Your task to perform on an android device: show emergency info Image 0: 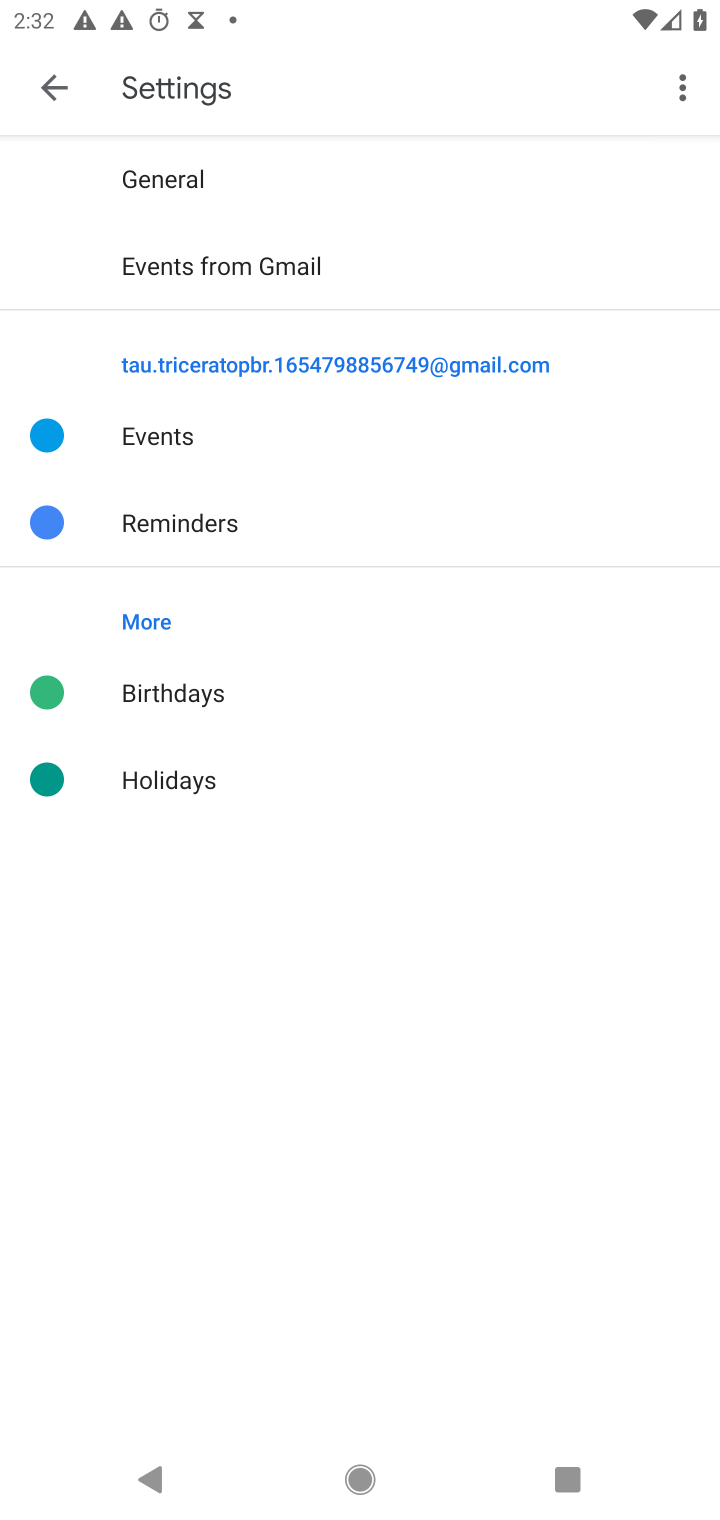
Step 0: press home button
Your task to perform on an android device: show emergency info Image 1: 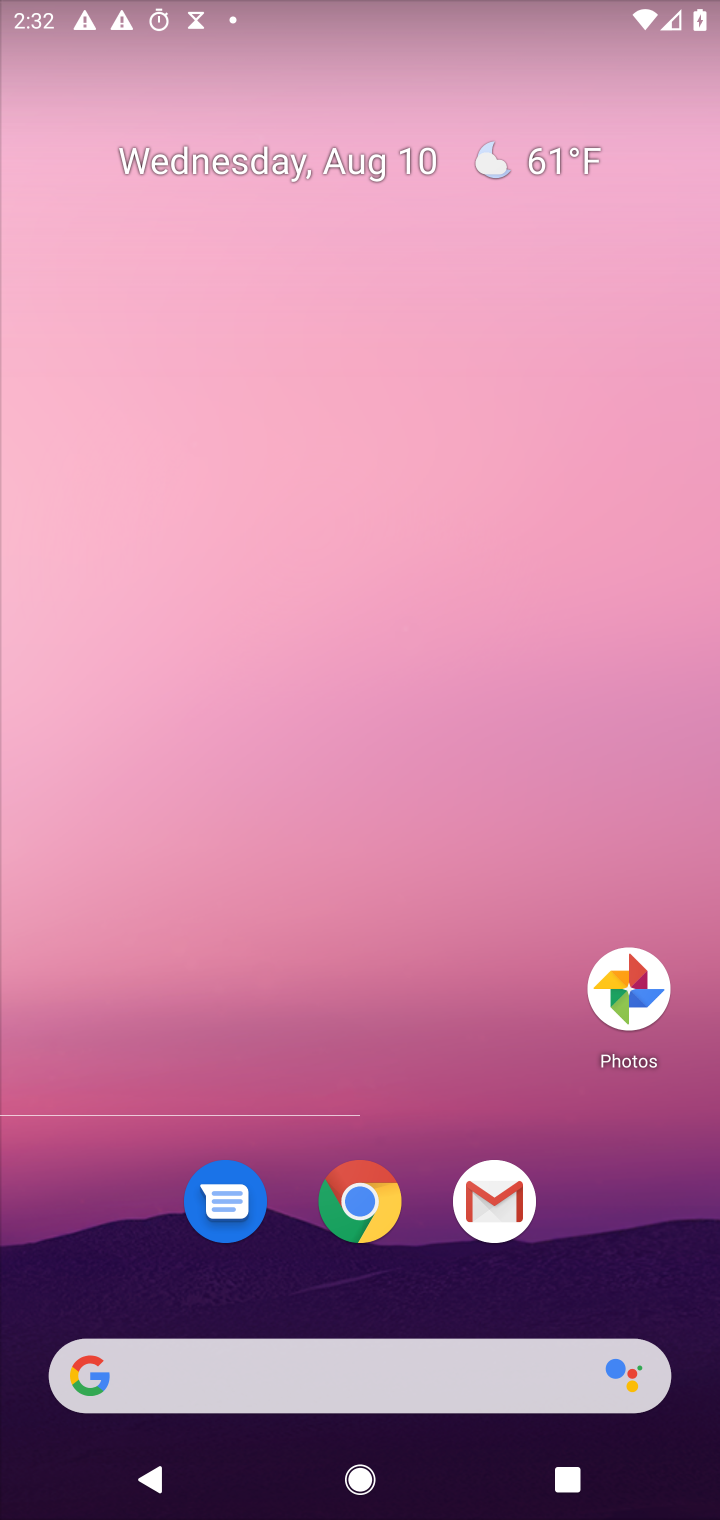
Step 1: drag from (424, 1268) to (282, 273)
Your task to perform on an android device: show emergency info Image 2: 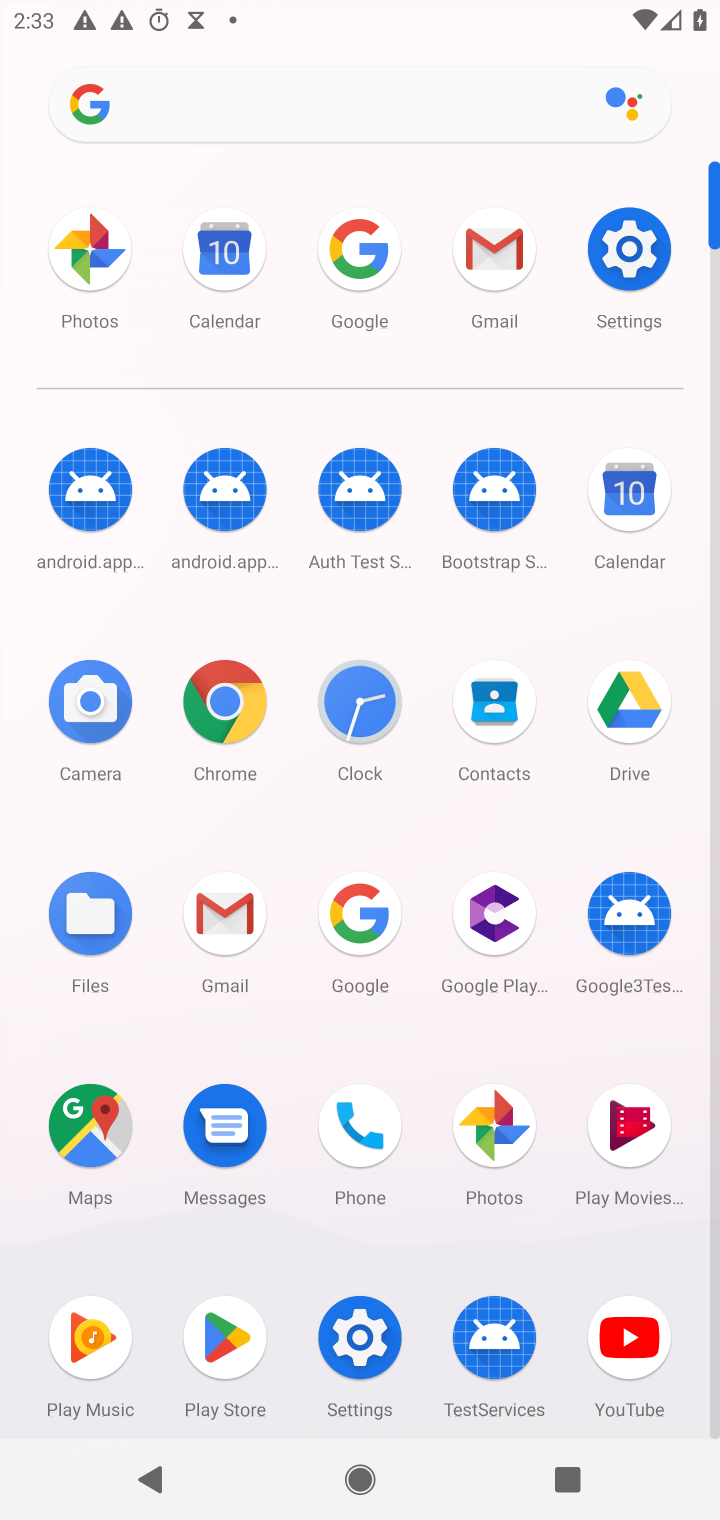
Step 2: click (646, 239)
Your task to perform on an android device: show emergency info Image 3: 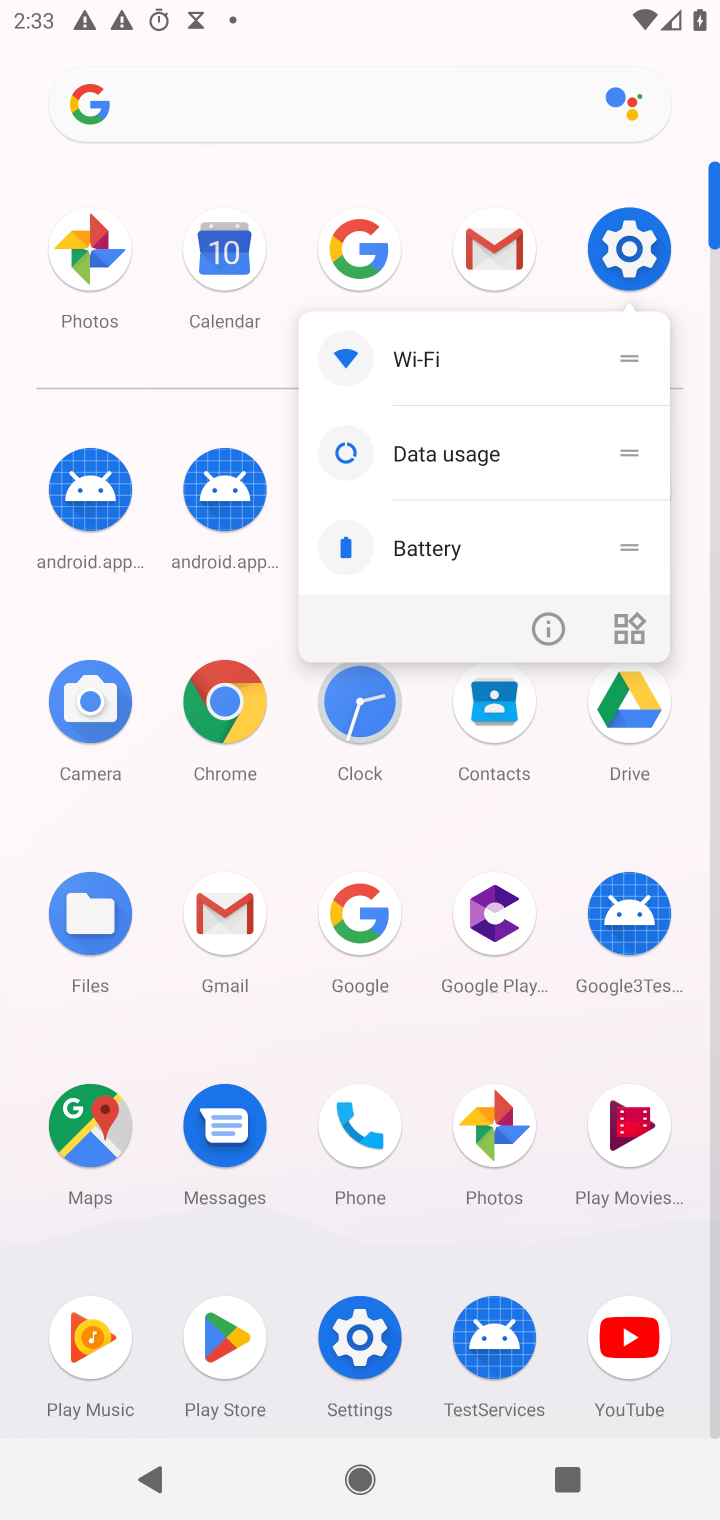
Step 3: click (616, 257)
Your task to perform on an android device: show emergency info Image 4: 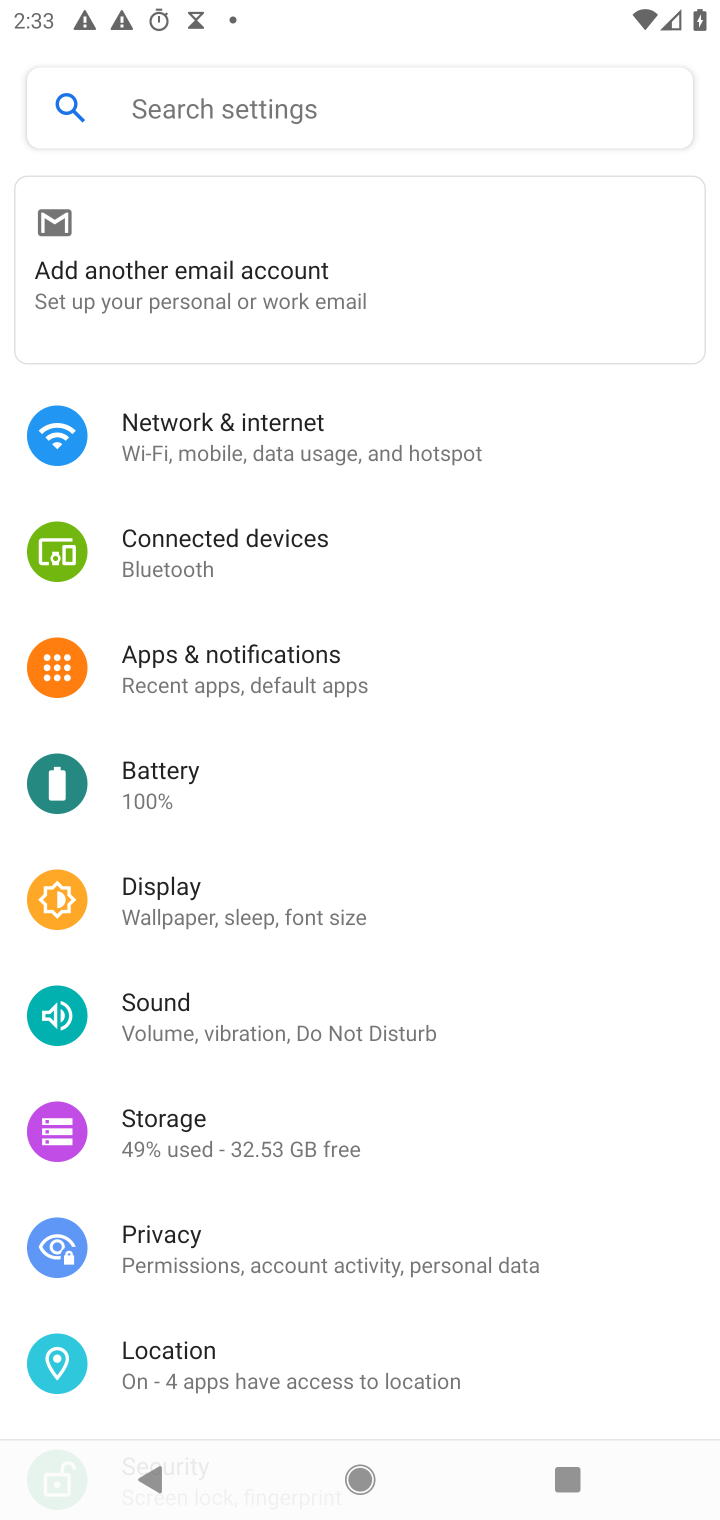
Step 4: drag from (536, 1249) to (296, 199)
Your task to perform on an android device: show emergency info Image 5: 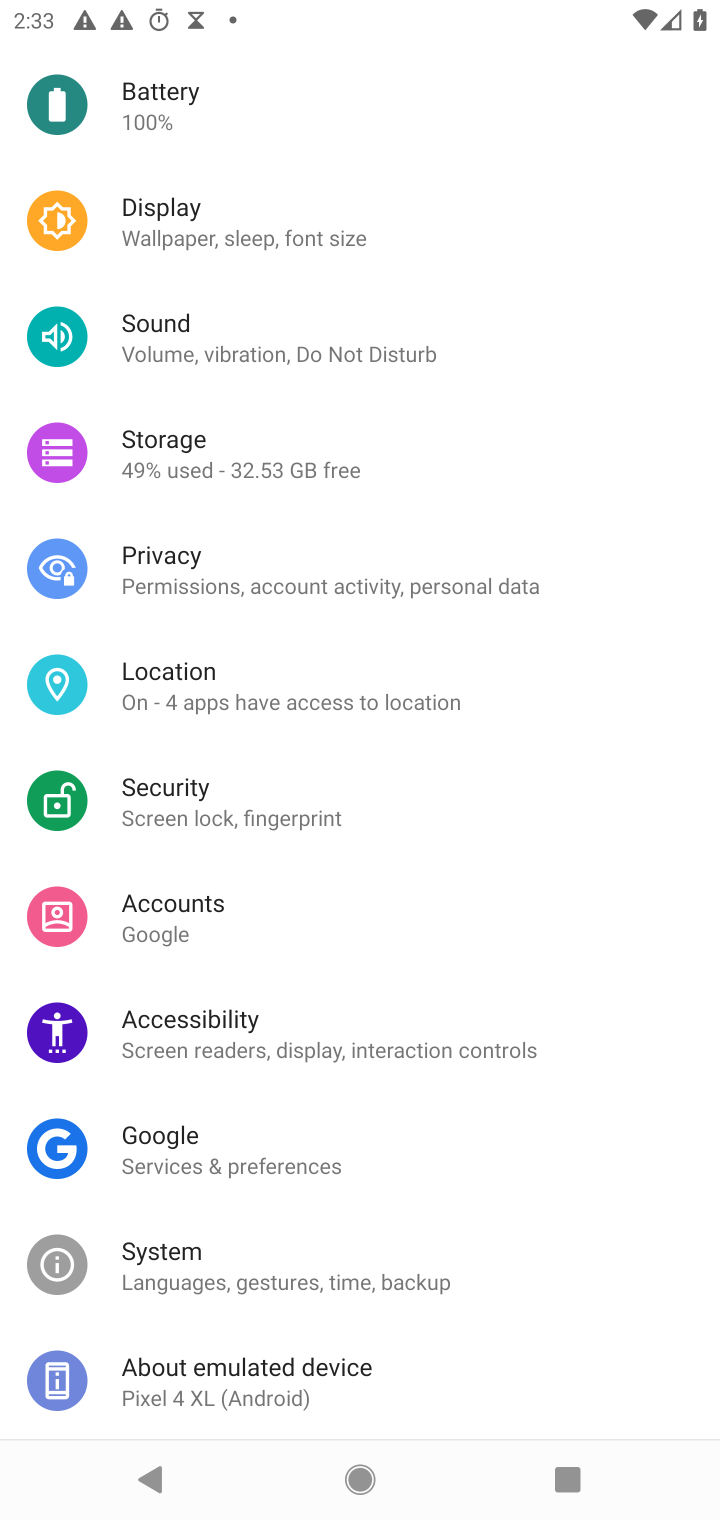
Step 5: drag from (689, 1387) to (534, 312)
Your task to perform on an android device: show emergency info Image 6: 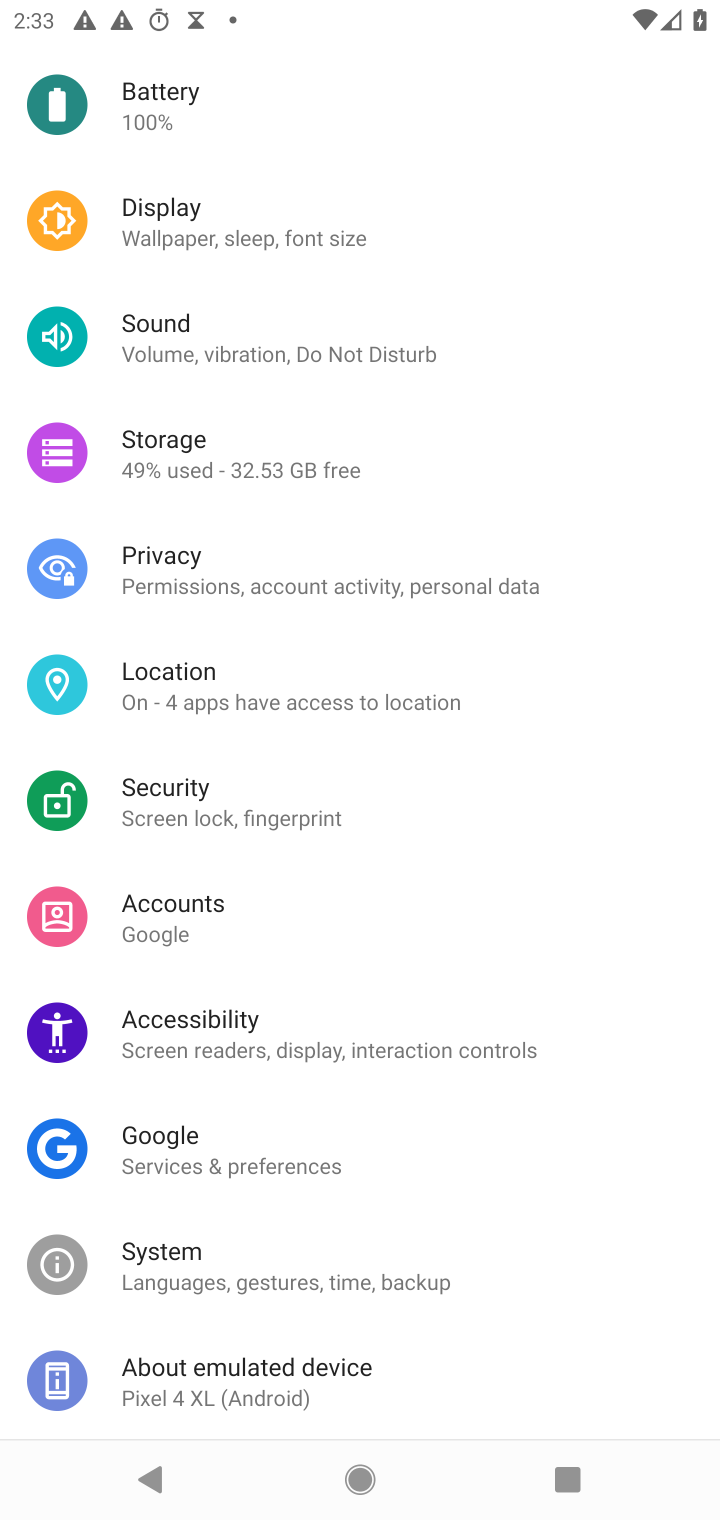
Step 6: click (179, 1382)
Your task to perform on an android device: show emergency info Image 7: 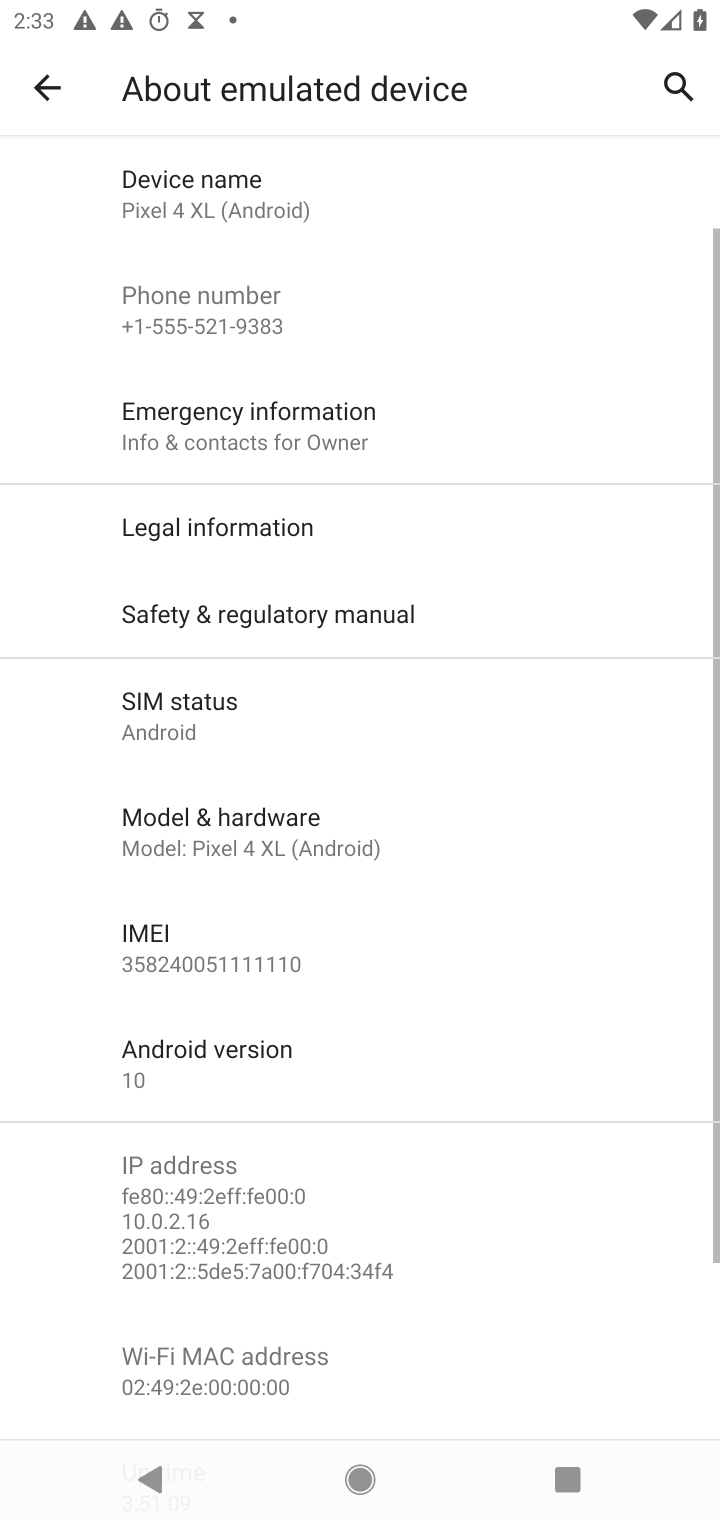
Step 7: click (229, 427)
Your task to perform on an android device: show emergency info Image 8: 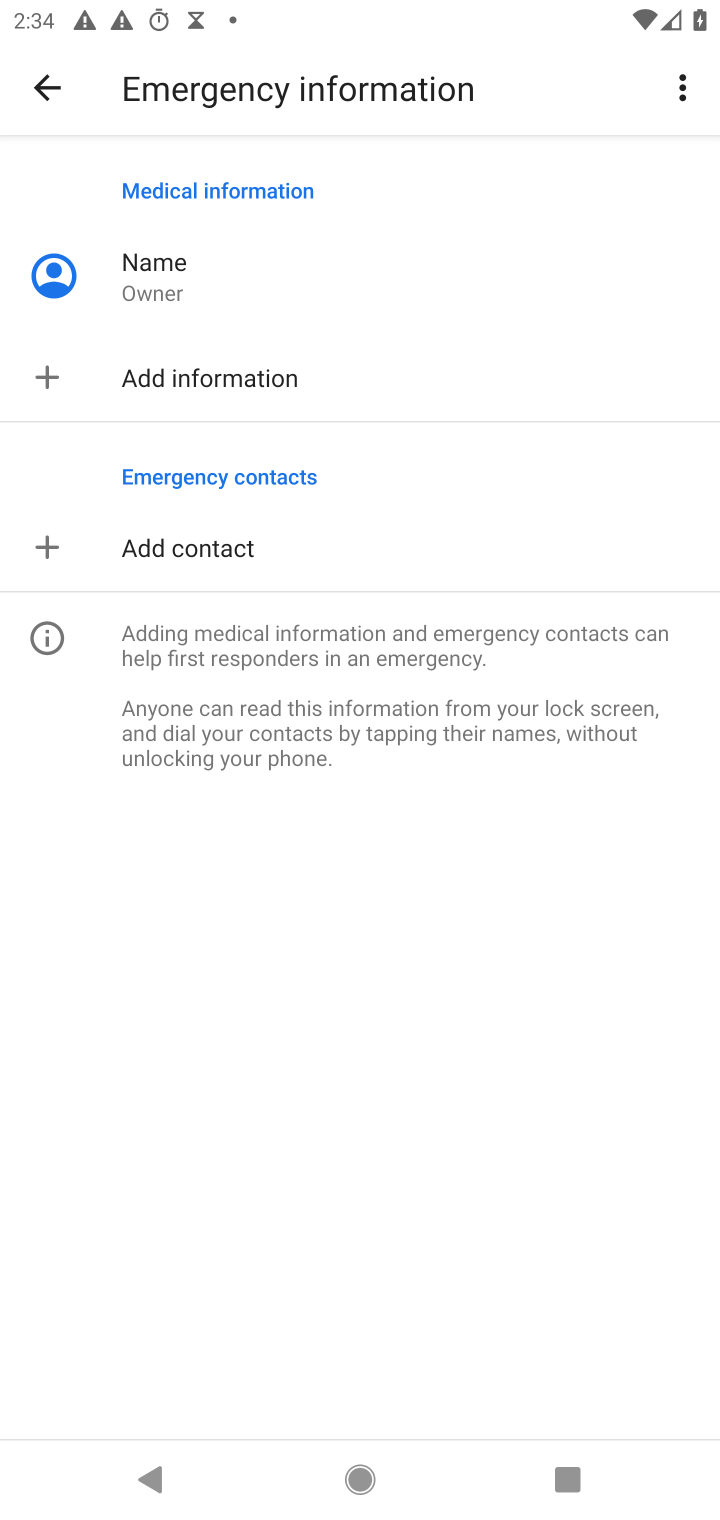
Step 8: task complete